Your task to perform on an android device: change the clock display to analog Image 0: 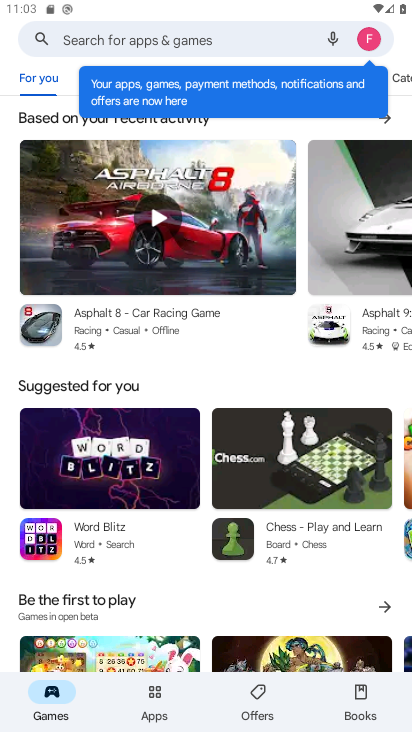
Step 0: press home button
Your task to perform on an android device: change the clock display to analog Image 1: 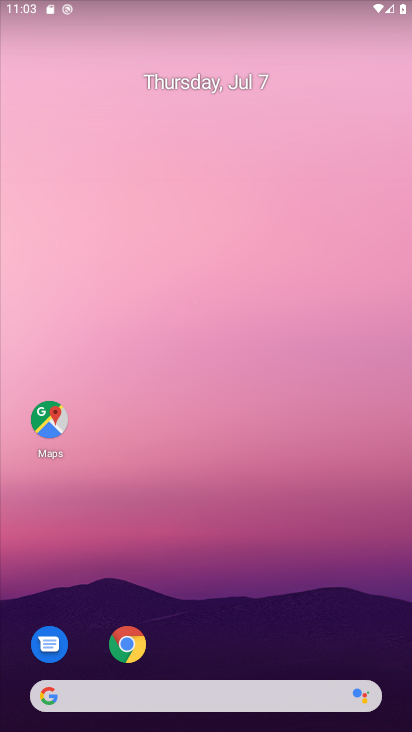
Step 1: drag from (241, 640) to (241, 150)
Your task to perform on an android device: change the clock display to analog Image 2: 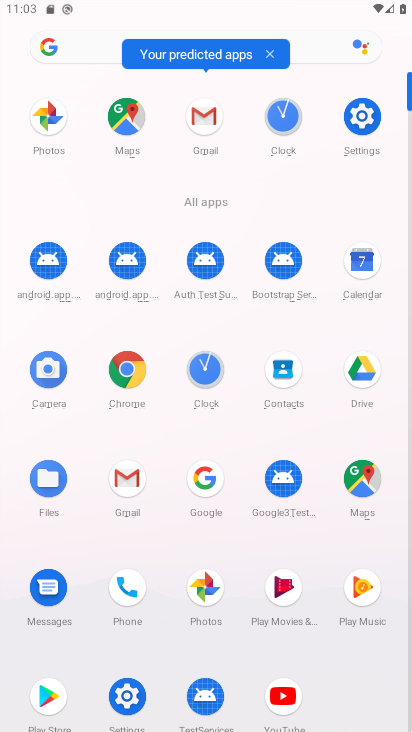
Step 2: click (209, 374)
Your task to perform on an android device: change the clock display to analog Image 3: 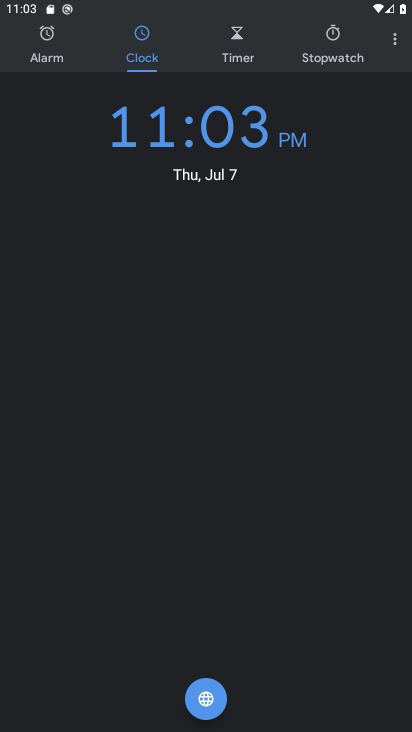
Step 3: click (392, 40)
Your task to perform on an android device: change the clock display to analog Image 4: 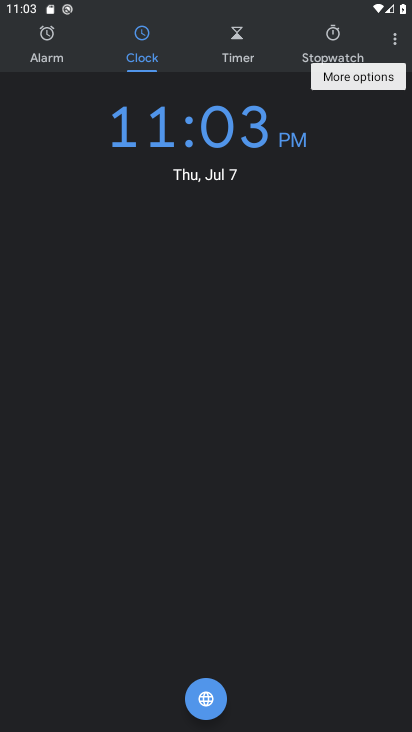
Step 4: click (391, 37)
Your task to perform on an android device: change the clock display to analog Image 5: 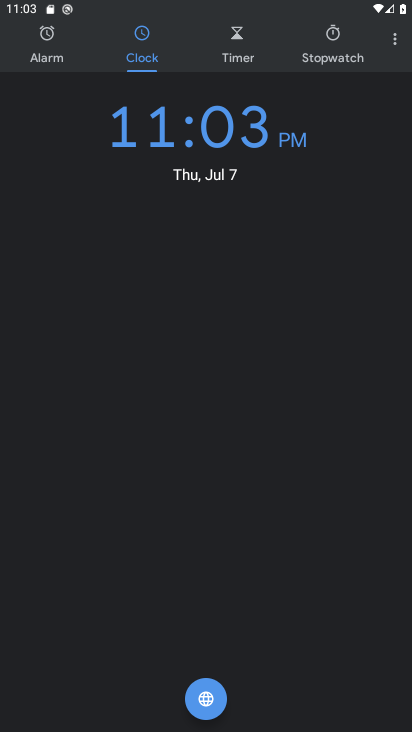
Step 5: click (393, 35)
Your task to perform on an android device: change the clock display to analog Image 6: 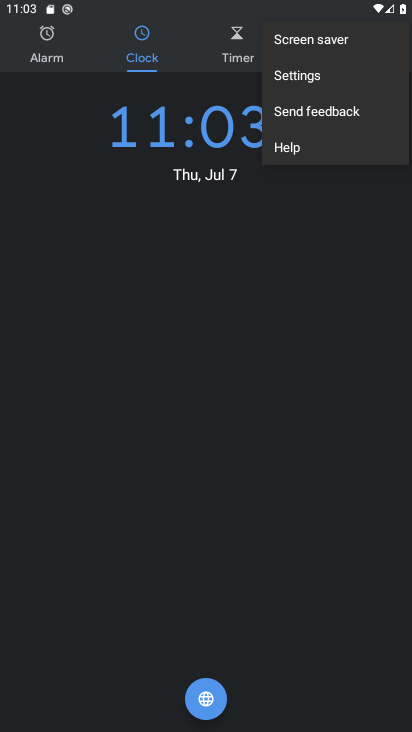
Step 6: click (308, 71)
Your task to perform on an android device: change the clock display to analog Image 7: 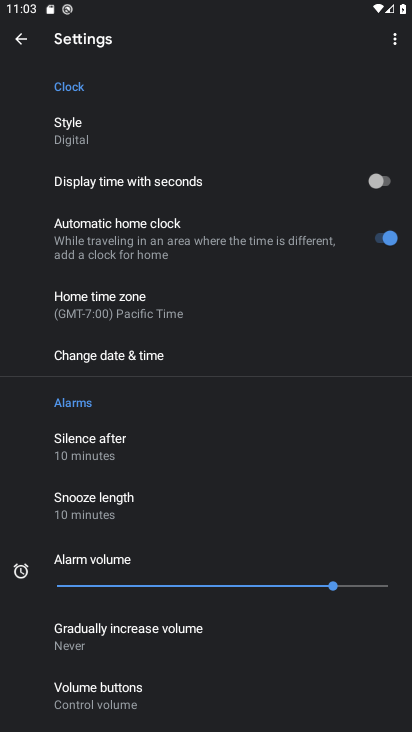
Step 7: click (66, 127)
Your task to perform on an android device: change the clock display to analog Image 8: 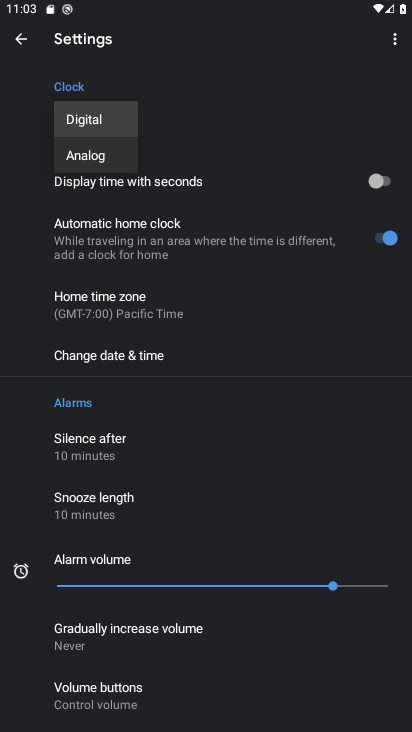
Step 8: click (94, 155)
Your task to perform on an android device: change the clock display to analog Image 9: 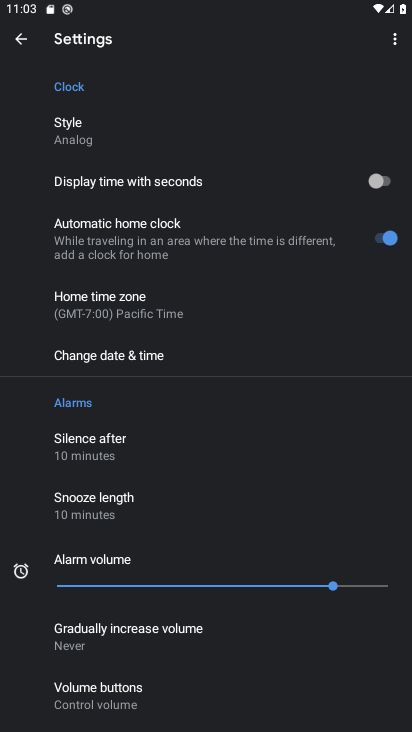
Step 9: task complete